Your task to perform on an android device: toggle notification dots Image 0: 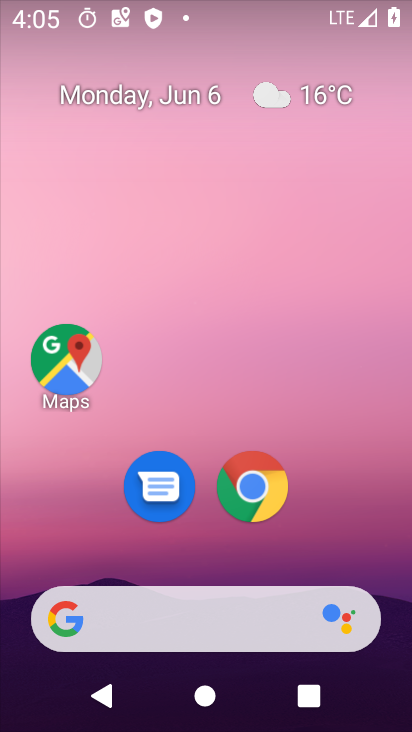
Step 0: drag from (329, 469) to (318, 133)
Your task to perform on an android device: toggle notification dots Image 1: 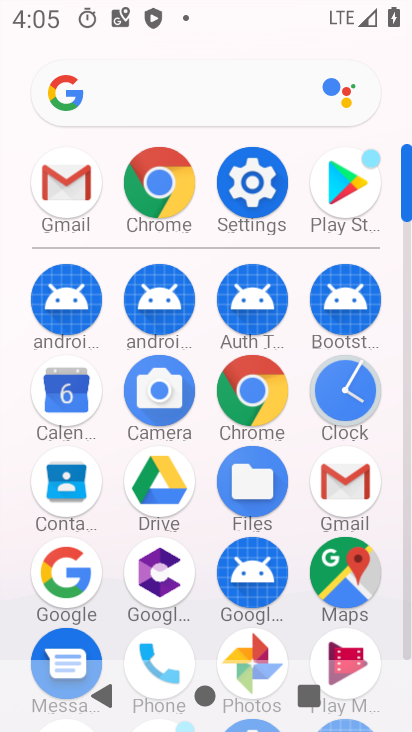
Step 1: click (240, 194)
Your task to perform on an android device: toggle notification dots Image 2: 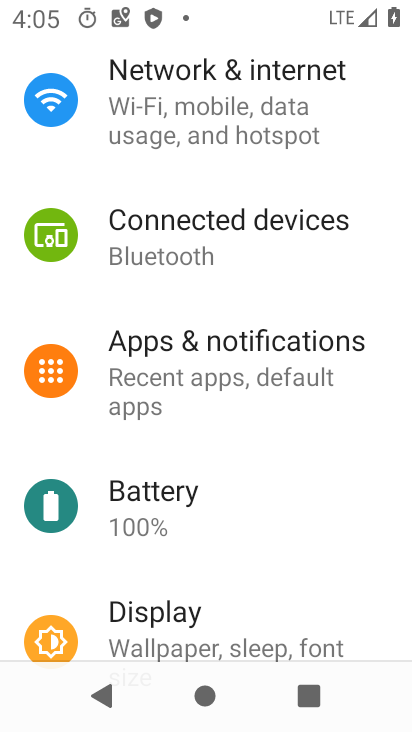
Step 2: click (206, 363)
Your task to perform on an android device: toggle notification dots Image 3: 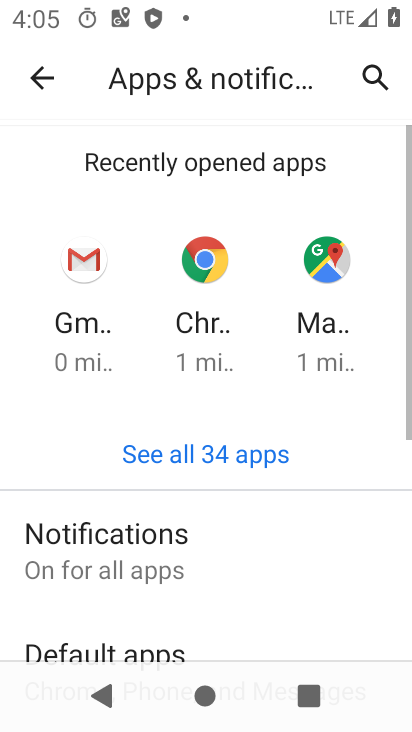
Step 3: click (162, 515)
Your task to perform on an android device: toggle notification dots Image 4: 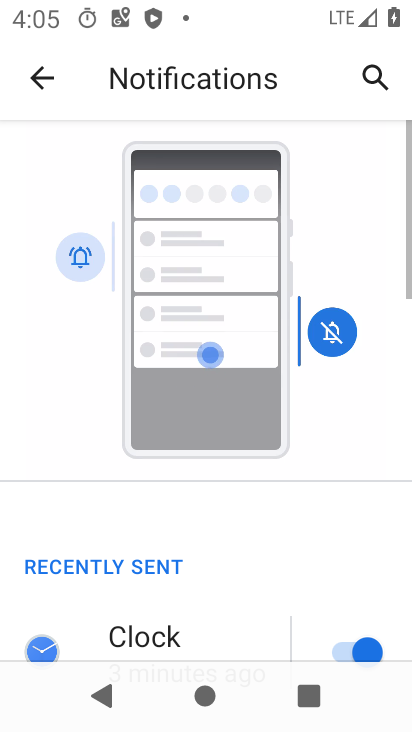
Step 4: drag from (276, 556) to (342, 101)
Your task to perform on an android device: toggle notification dots Image 5: 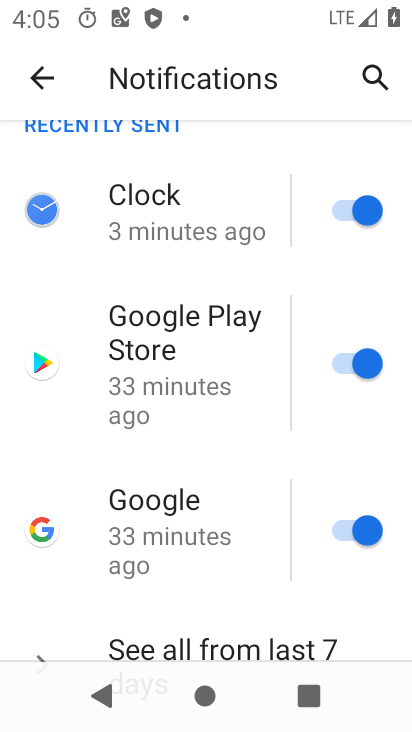
Step 5: drag from (199, 608) to (409, 157)
Your task to perform on an android device: toggle notification dots Image 6: 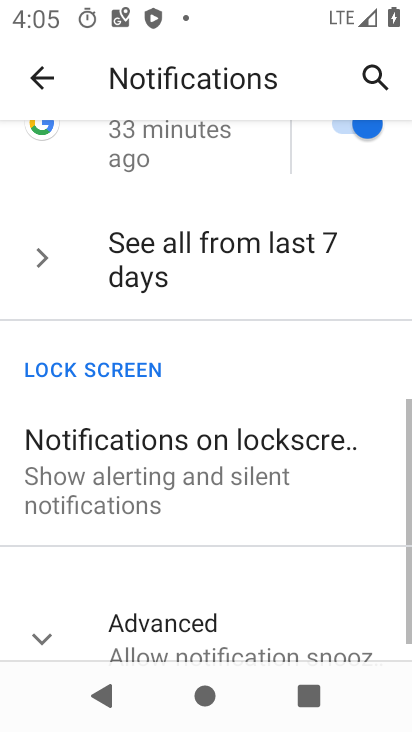
Step 6: drag from (194, 522) to (316, 169)
Your task to perform on an android device: toggle notification dots Image 7: 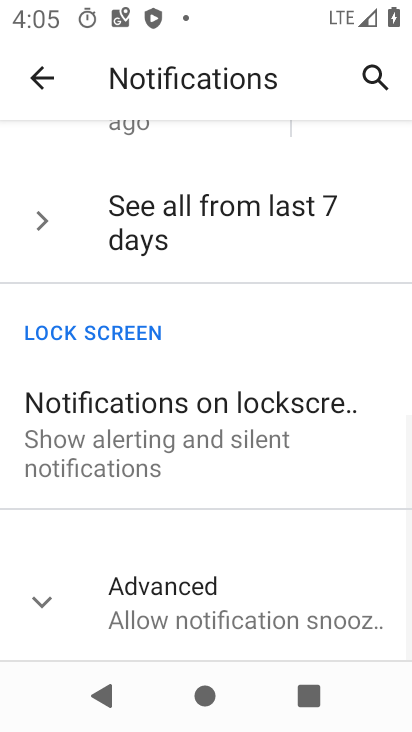
Step 7: click (121, 605)
Your task to perform on an android device: toggle notification dots Image 8: 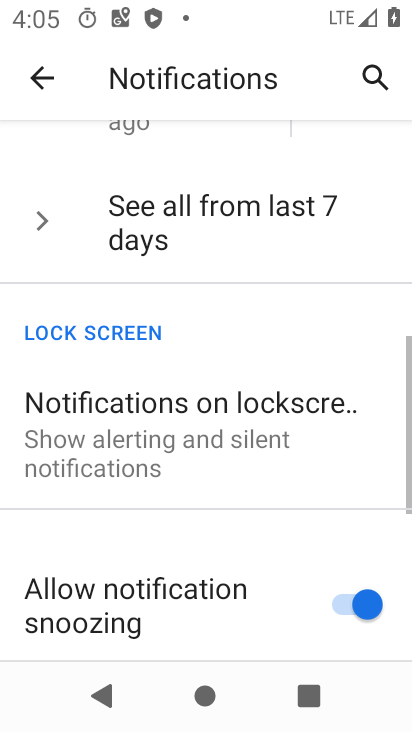
Step 8: drag from (173, 584) to (250, 157)
Your task to perform on an android device: toggle notification dots Image 9: 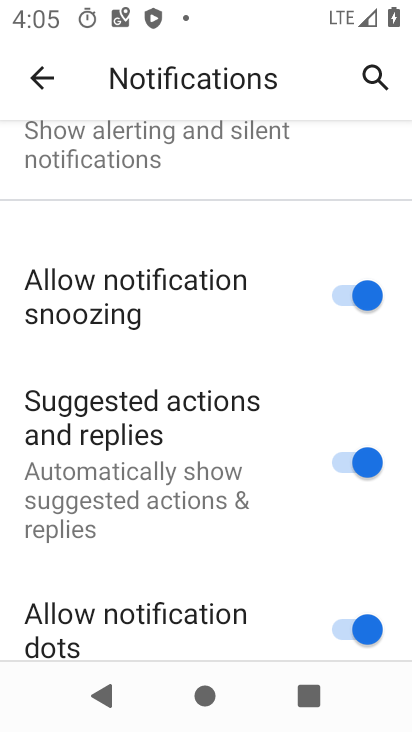
Step 9: drag from (194, 514) to (291, 139)
Your task to perform on an android device: toggle notification dots Image 10: 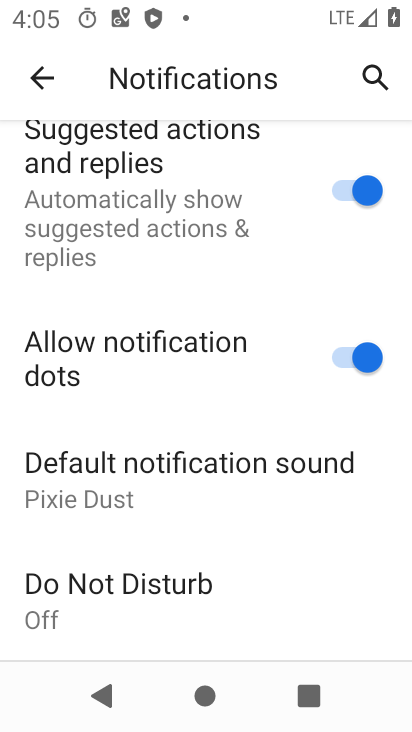
Step 10: click (343, 351)
Your task to perform on an android device: toggle notification dots Image 11: 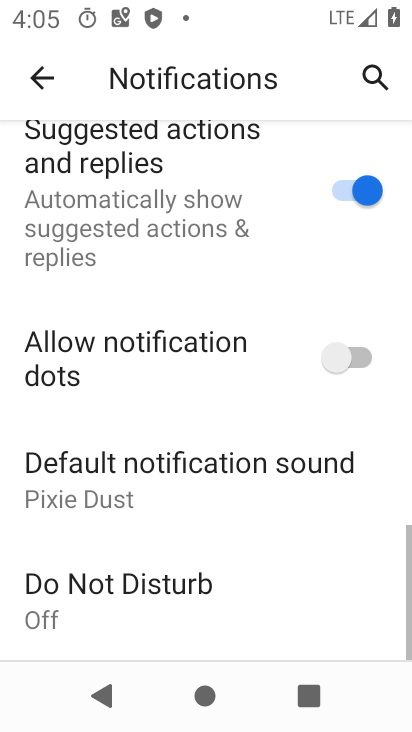
Step 11: task complete